Your task to perform on an android device: View the shopping cart on costco. Image 0: 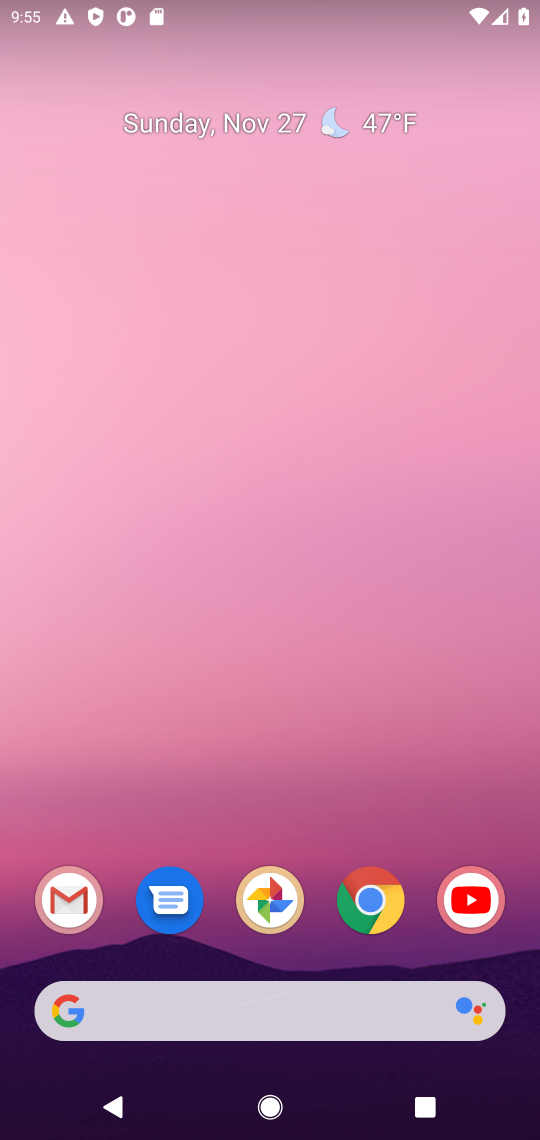
Step 0: click (365, 907)
Your task to perform on an android device: View the shopping cart on costco. Image 1: 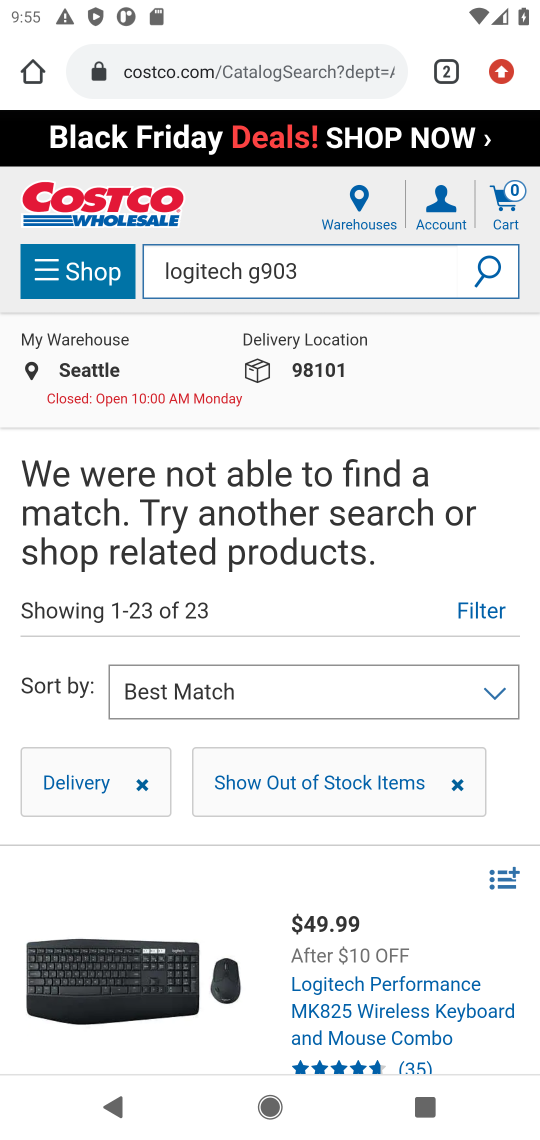
Step 1: click (506, 206)
Your task to perform on an android device: View the shopping cart on costco. Image 2: 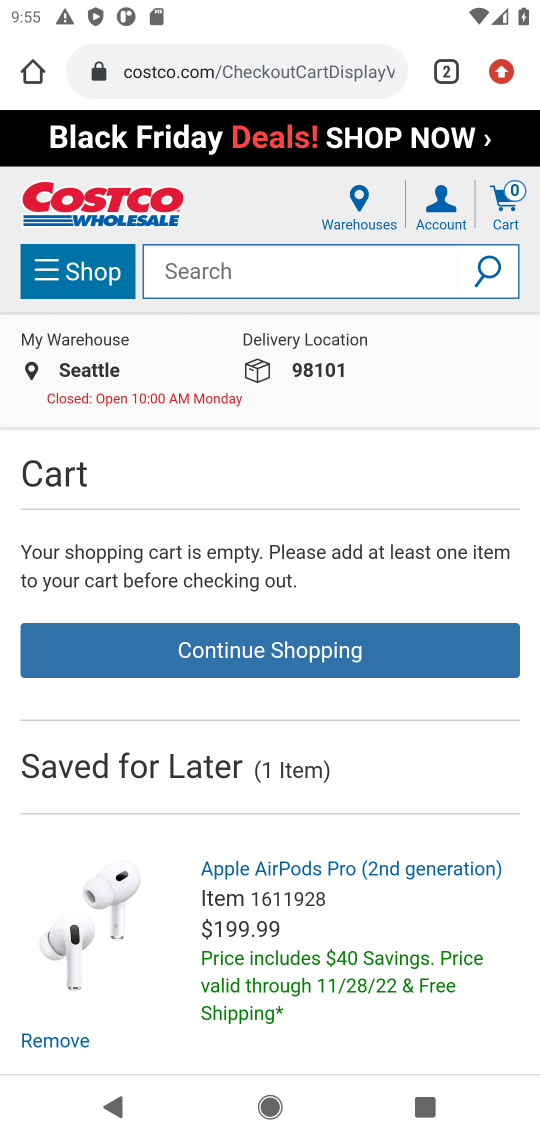
Step 2: task complete